Your task to perform on an android device: Open wifi settings Image 0: 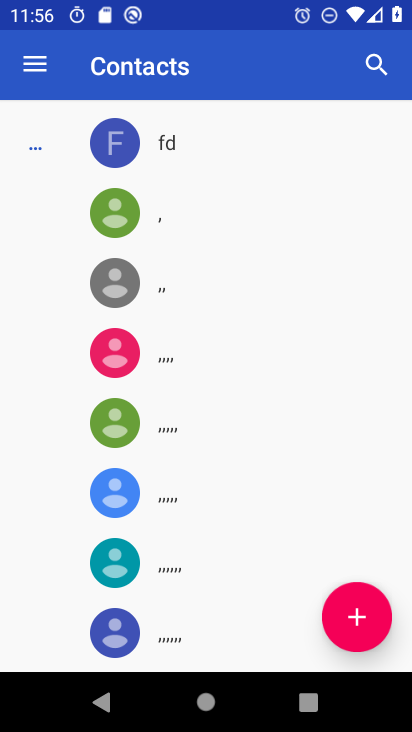
Step 0: press home button
Your task to perform on an android device: Open wifi settings Image 1: 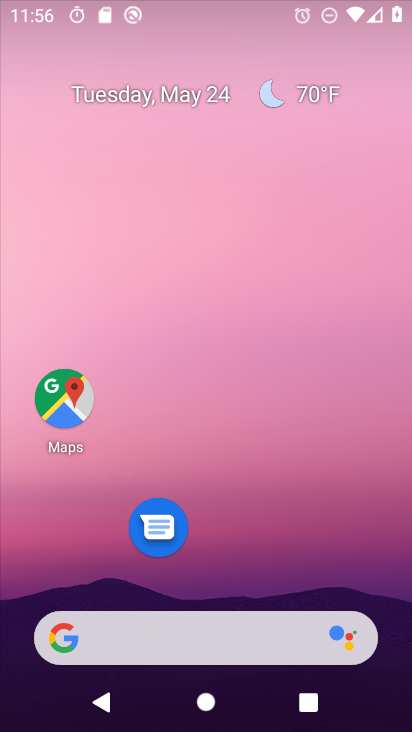
Step 1: drag from (262, 547) to (297, 103)
Your task to perform on an android device: Open wifi settings Image 2: 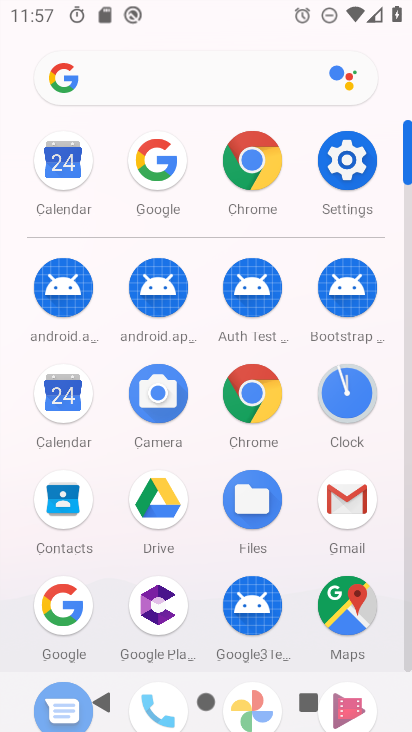
Step 2: click (356, 162)
Your task to perform on an android device: Open wifi settings Image 3: 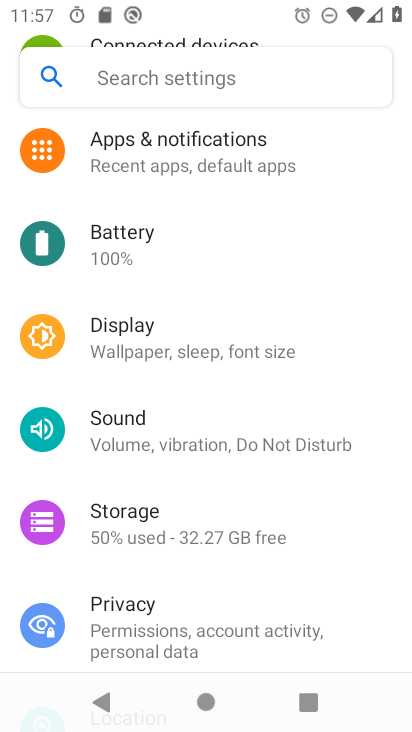
Step 3: drag from (202, 169) to (189, 496)
Your task to perform on an android device: Open wifi settings Image 4: 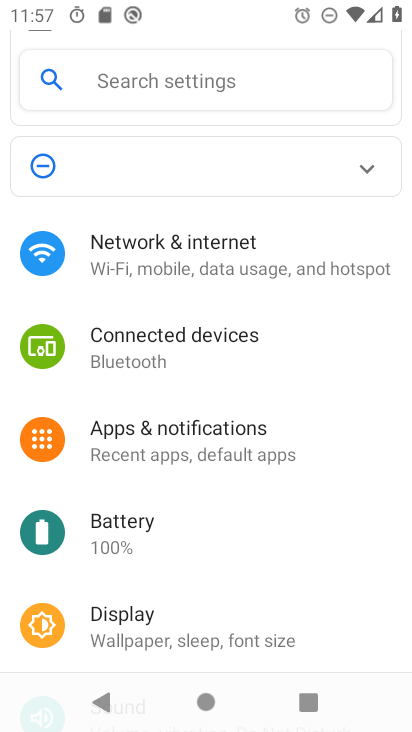
Step 4: click (164, 252)
Your task to perform on an android device: Open wifi settings Image 5: 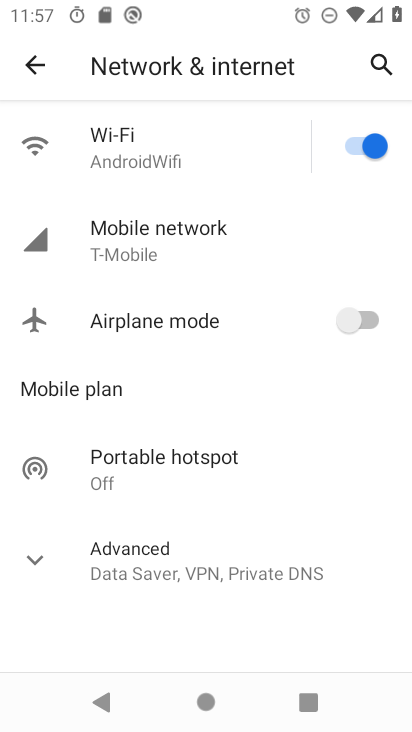
Step 5: click (141, 142)
Your task to perform on an android device: Open wifi settings Image 6: 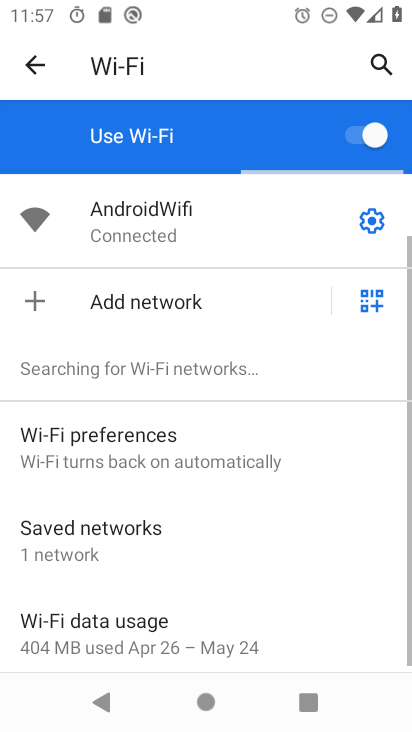
Step 6: click (370, 221)
Your task to perform on an android device: Open wifi settings Image 7: 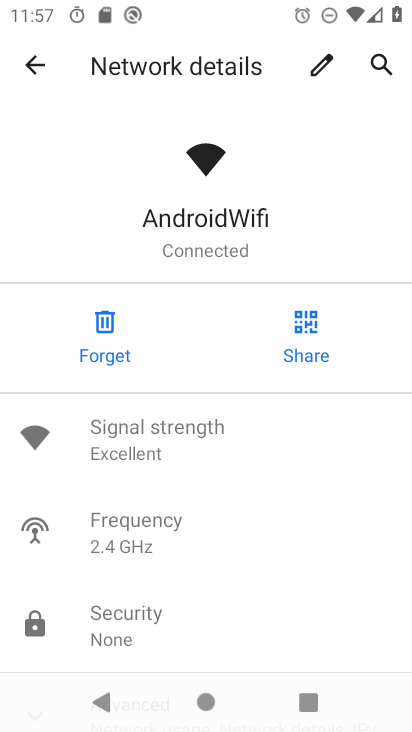
Step 7: task complete